Your task to perform on an android device: Open Wikipedia Image 0: 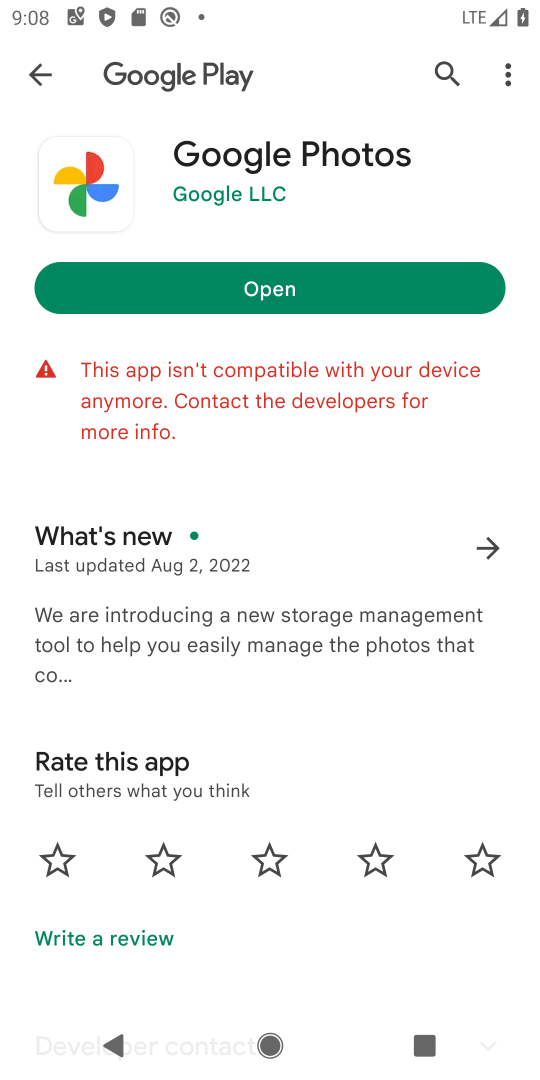
Step 0: press home button
Your task to perform on an android device: Open Wikipedia Image 1: 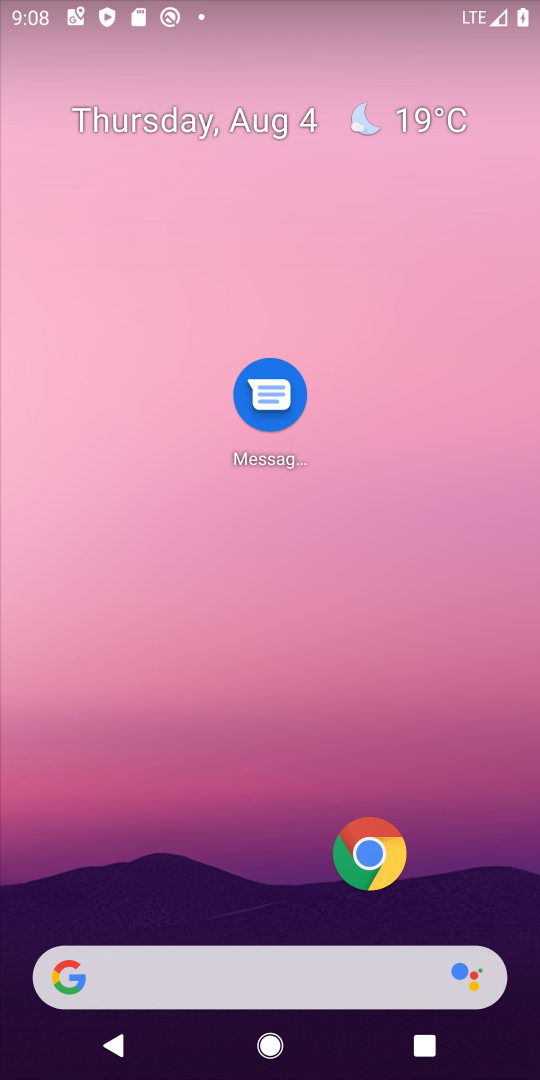
Step 1: click (386, 865)
Your task to perform on an android device: Open Wikipedia Image 2: 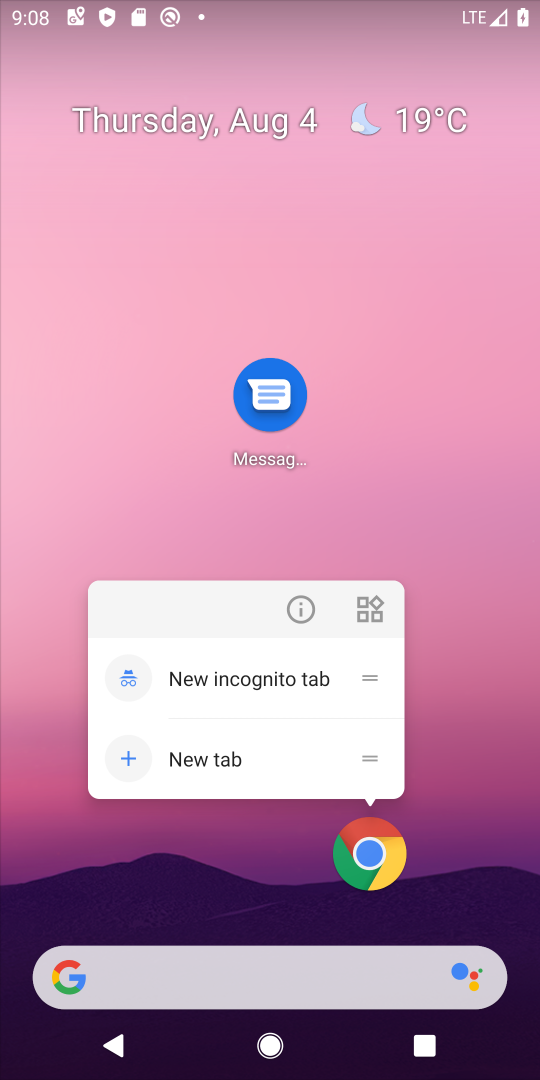
Step 2: click (371, 861)
Your task to perform on an android device: Open Wikipedia Image 3: 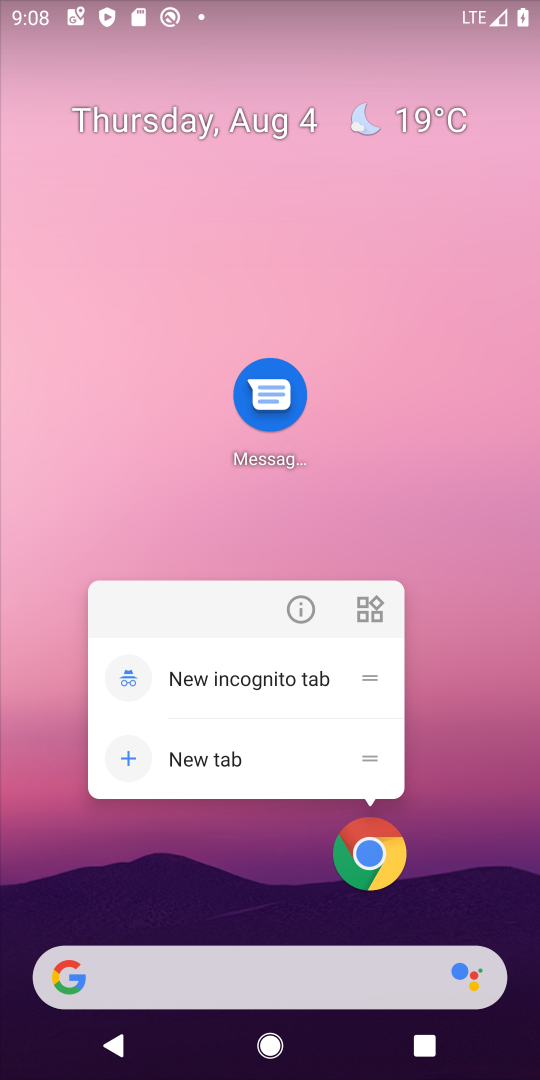
Step 3: click (361, 852)
Your task to perform on an android device: Open Wikipedia Image 4: 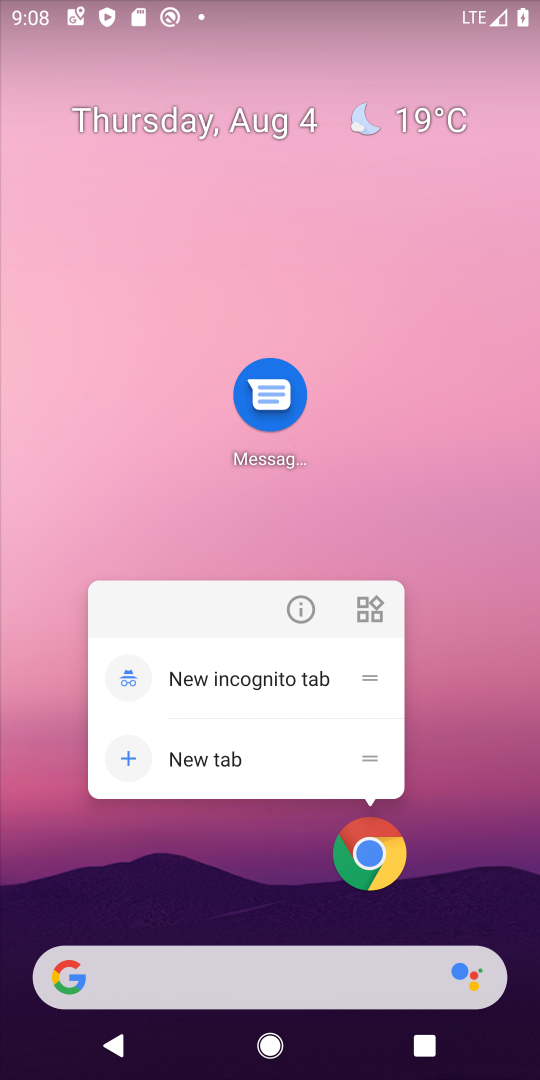
Step 4: click (372, 853)
Your task to perform on an android device: Open Wikipedia Image 5: 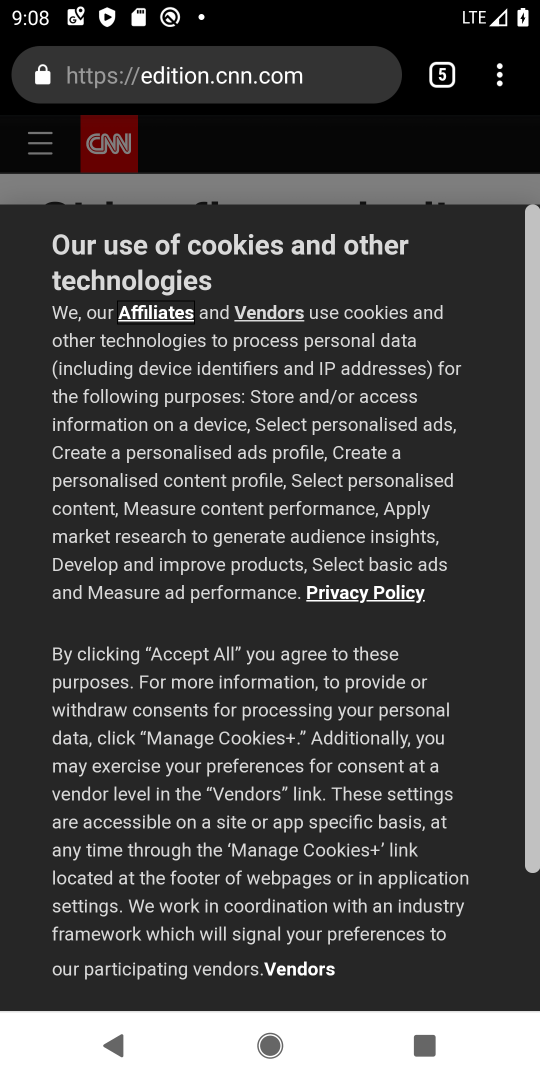
Step 5: click (455, 74)
Your task to perform on an android device: Open Wikipedia Image 6: 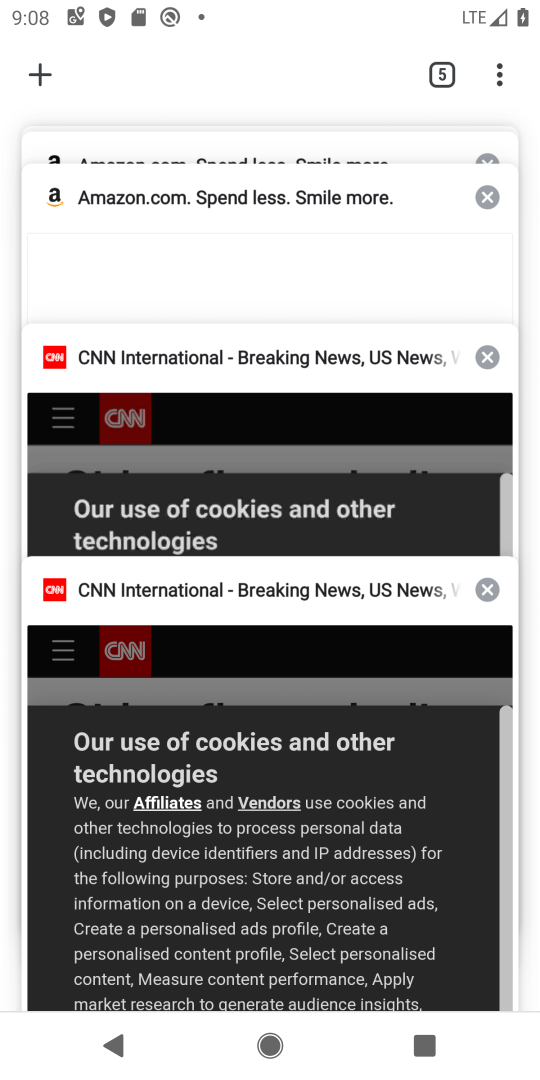
Step 6: click (233, 149)
Your task to perform on an android device: Open Wikipedia Image 7: 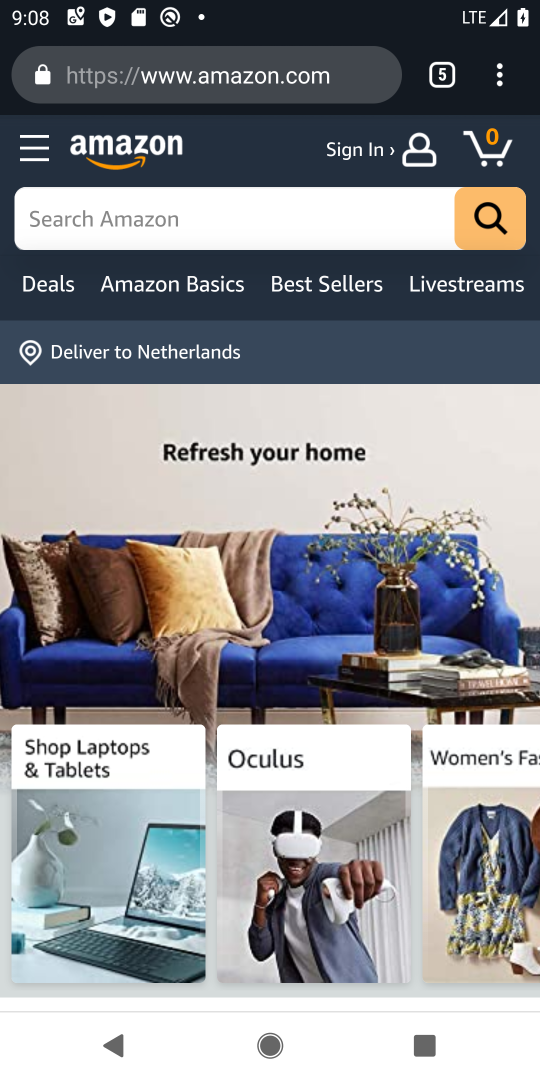
Step 7: click (444, 84)
Your task to perform on an android device: Open Wikipedia Image 8: 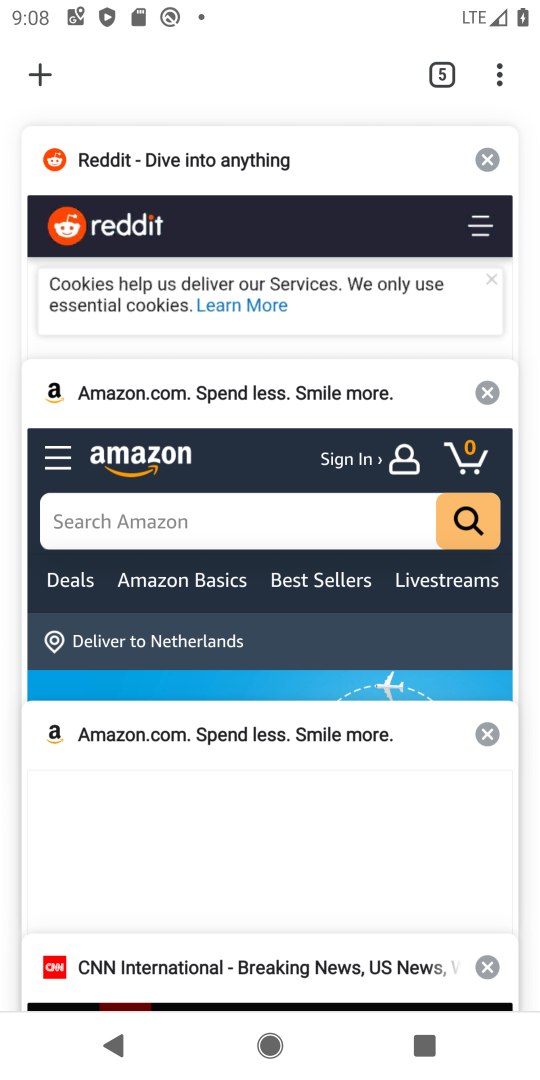
Step 8: click (34, 81)
Your task to perform on an android device: Open Wikipedia Image 9: 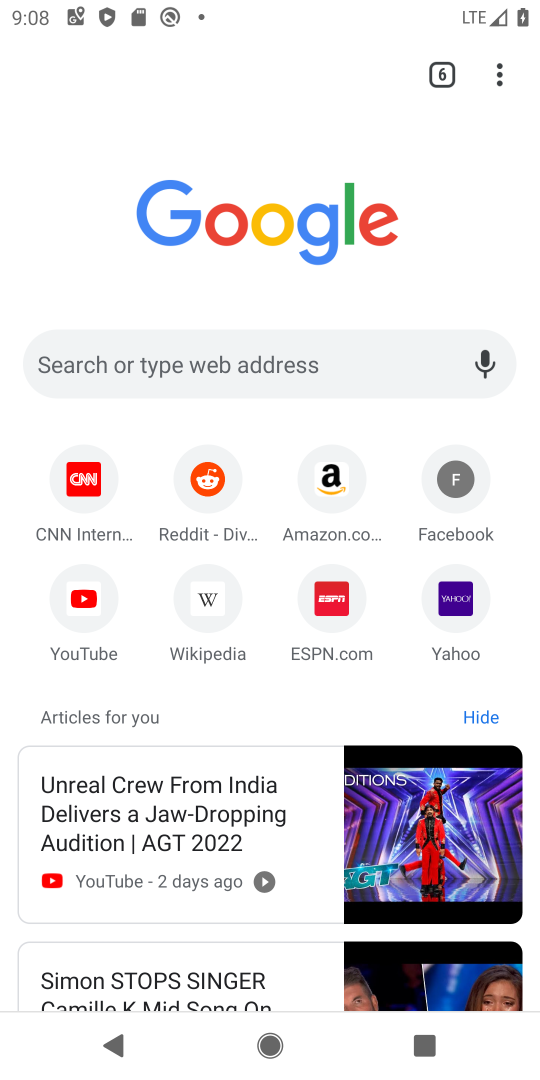
Step 9: click (214, 597)
Your task to perform on an android device: Open Wikipedia Image 10: 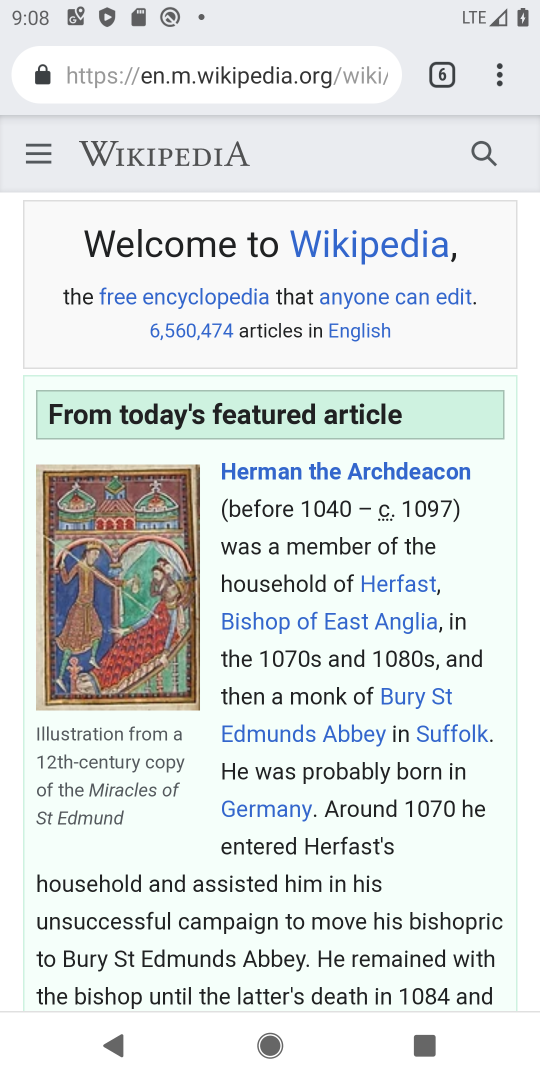
Step 10: task complete